Your task to perform on an android device: Search for hotels in Philadelphia Image 0: 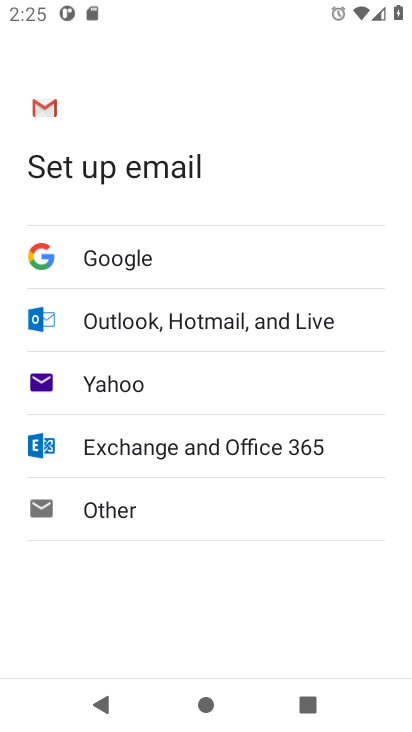
Step 0: press home button
Your task to perform on an android device: Search for hotels in Philadelphia Image 1: 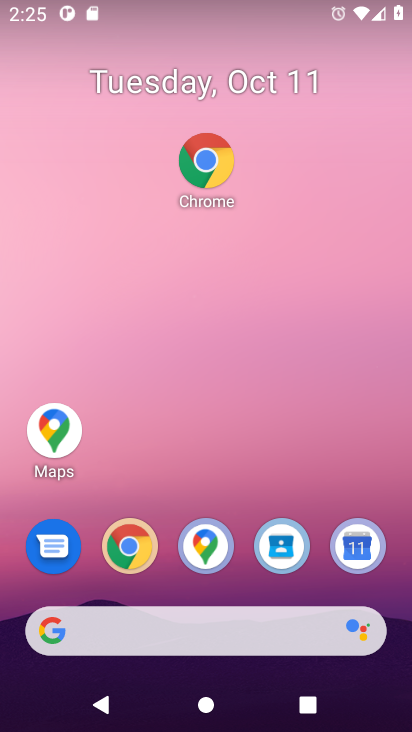
Step 1: click (127, 541)
Your task to perform on an android device: Search for hotels in Philadelphia Image 2: 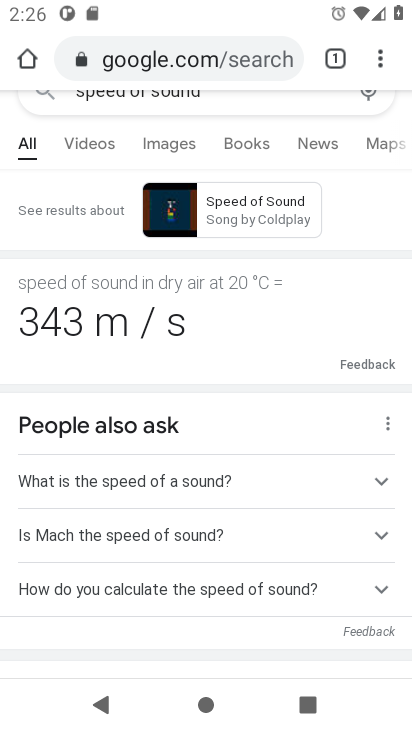
Step 2: click (203, 55)
Your task to perform on an android device: Search for hotels in Philadelphia Image 3: 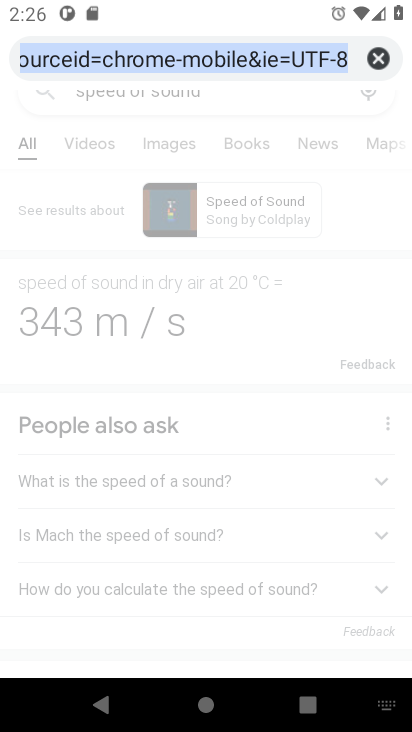
Step 3: type "hotels in Philadelphia"
Your task to perform on an android device: Search for hotels in Philadelphia Image 4: 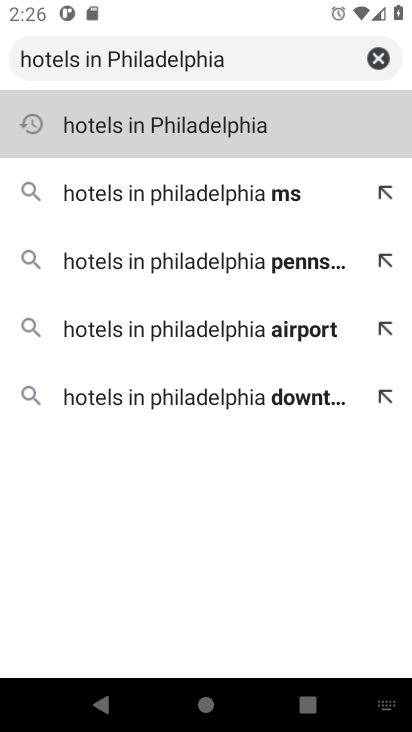
Step 4: press enter
Your task to perform on an android device: Search for hotels in Philadelphia Image 5: 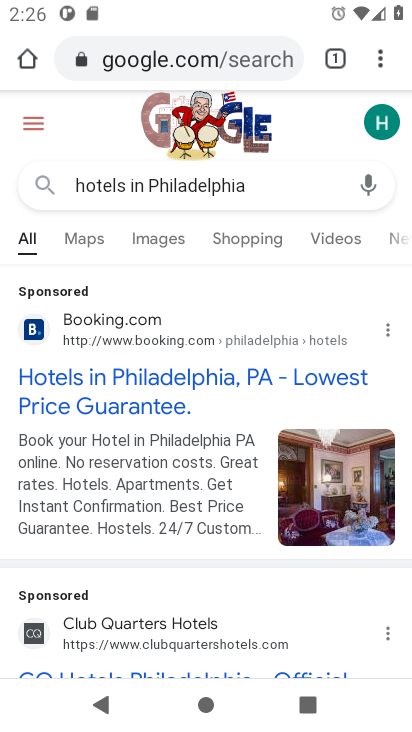
Step 5: click (141, 389)
Your task to perform on an android device: Search for hotels in Philadelphia Image 6: 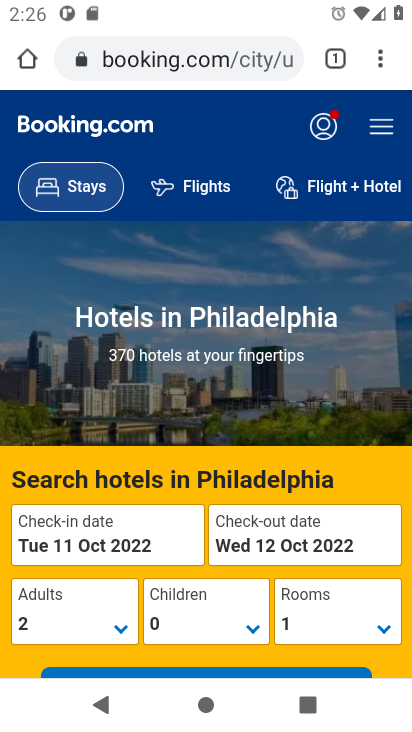
Step 6: drag from (271, 472) to (305, 236)
Your task to perform on an android device: Search for hotels in Philadelphia Image 7: 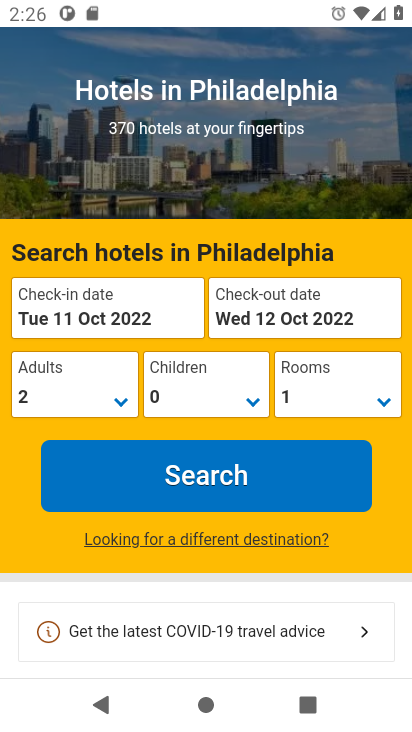
Step 7: drag from (284, 542) to (286, 162)
Your task to perform on an android device: Search for hotels in Philadelphia Image 8: 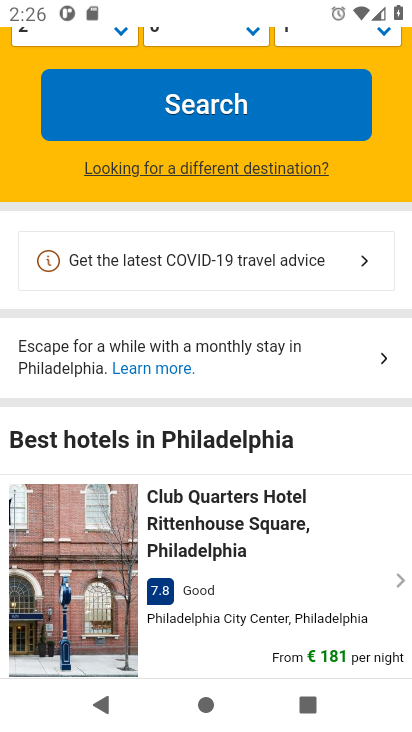
Step 8: drag from (224, 579) to (231, 233)
Your task to perform on an android device: Search for hotels in Philadelphia Image 9: 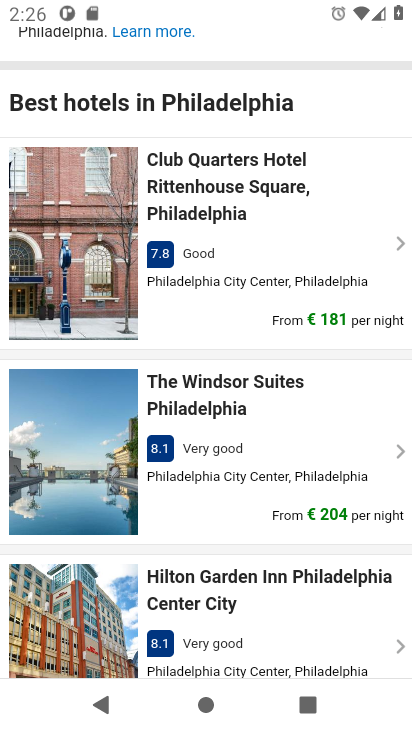
Step 9: drag from (224, 513) to (239, 414)
Your task to perform on an android device: Search for hotels in Philadelphia Image 10: 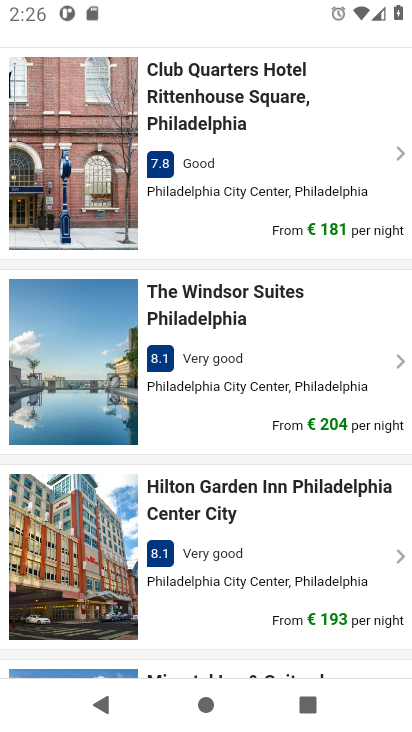
Step 10: click (318, 126)
Your task to perform on an android device: Search for hotels in Philadelphia Image 11: 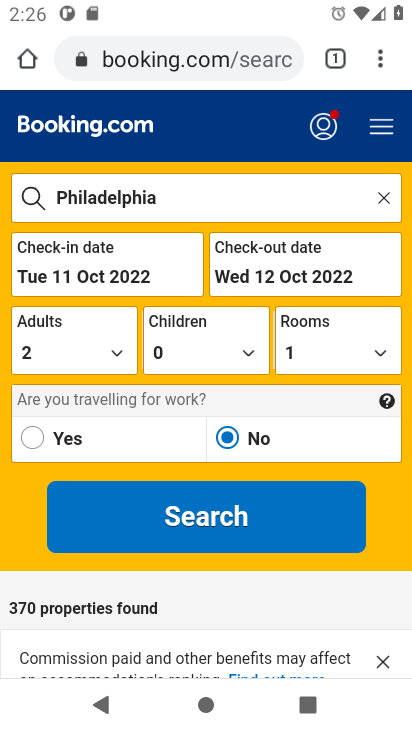
Step 11: drag from (367, 606) to (345, 286)
Your task to perform on an android device: Search for hotels in Philadelphia Image 12: 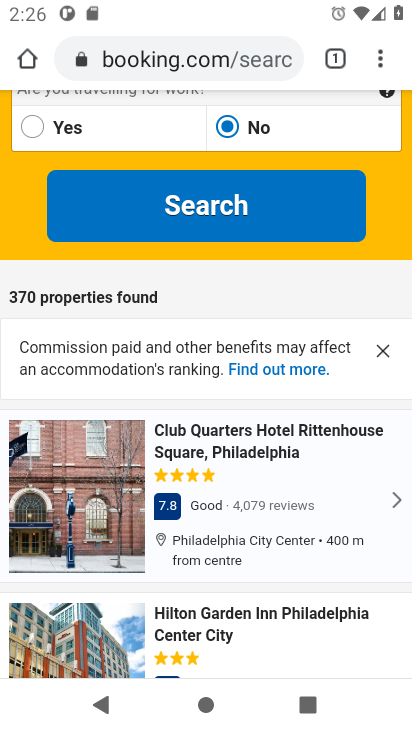
Step 12: drag from (285, 550) to (316, 643)
Your task to perform on an android device: Search for hotels in Philadelphia Image 13: 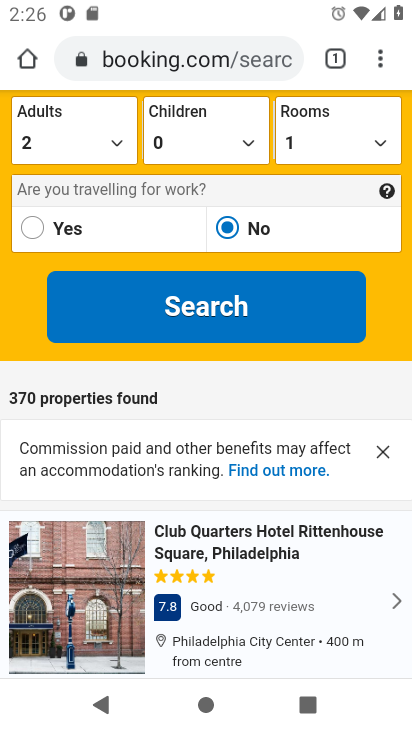
Step 13: drag from (241, 213) to (238, 537)
Your task to perform on an android device: Search for hotels in Philadelphia Image 14: 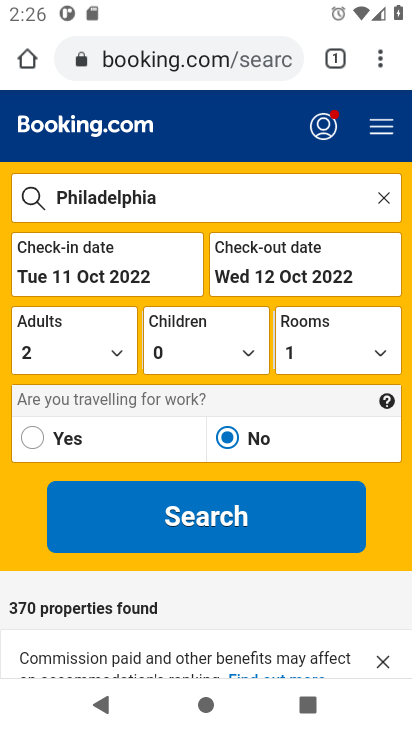
Step 14: drag from (286, 589) to (274, 272)
Your task to perform on an android device: Search for hotels in Philadelphia Image 15: 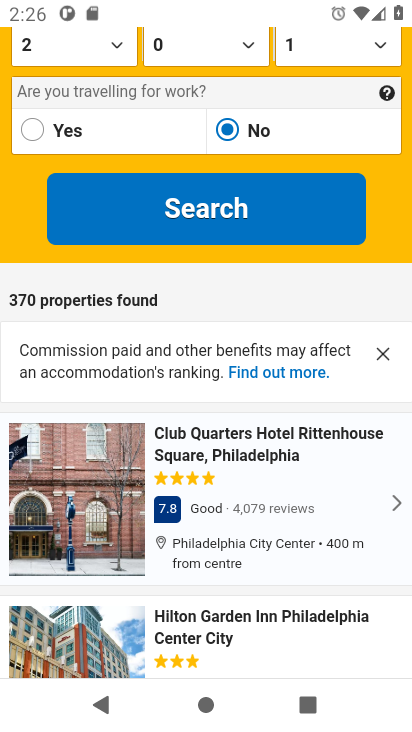
Step 15: drag from (267, 496) to (267, 158)
Your task to perform on an android device: Search for hotels in Philadelphia Image 16: 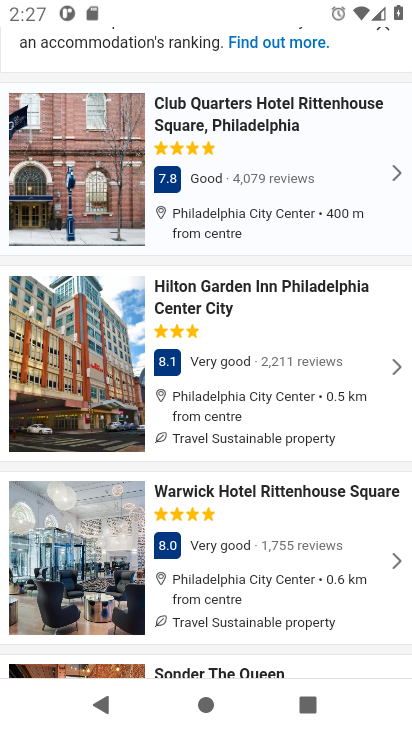
Step 16: click (393, 364)
Your task to perform on an android device: Search for hotels in Philadelphia Image 17: 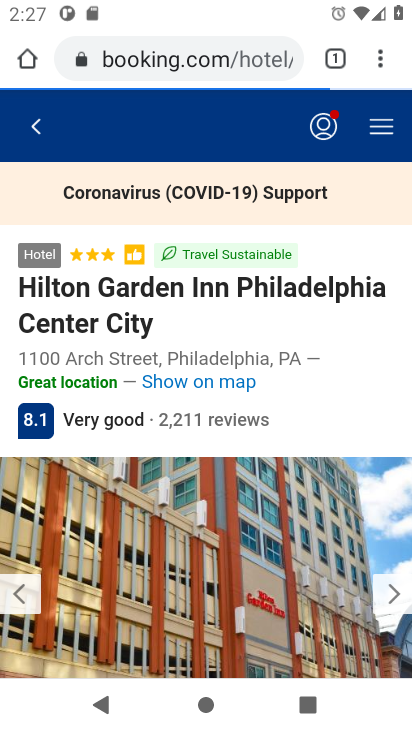
Step 17: drag from (274, 634) to (309, 423)
Your task to perform on an android device: Search for hotels in Philadelphia Image 18: 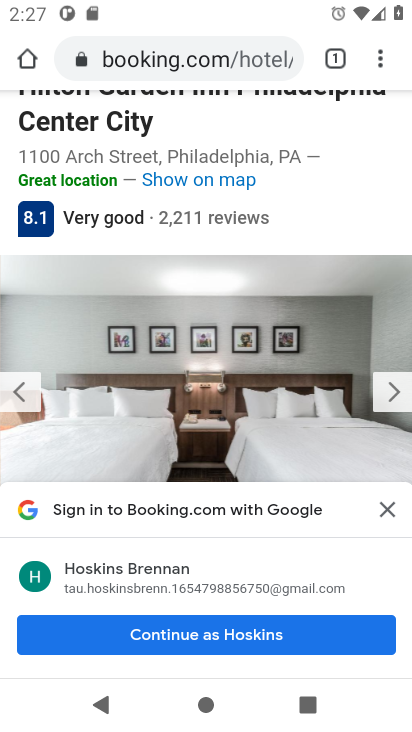
Step 18: click (397, 394)
Your task to perform on an android device: Search for hotels in Philadelphia Image 19: 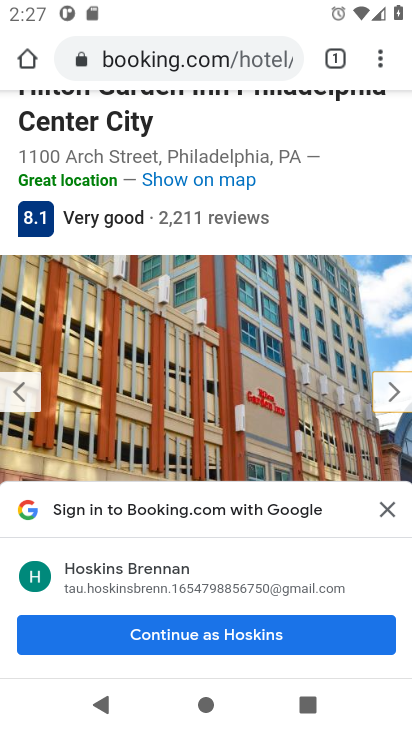
Step 19: click (397, 394)
Your task to perform on an android device: Search for hotels in Philadelphia Image 20: 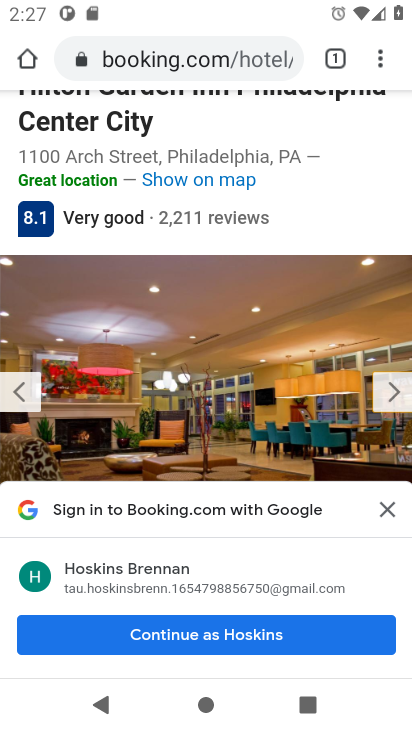
Step 20: click (397, 394)
Your task to perform on an android device: Search for hotels in Philadelphia Image 21: 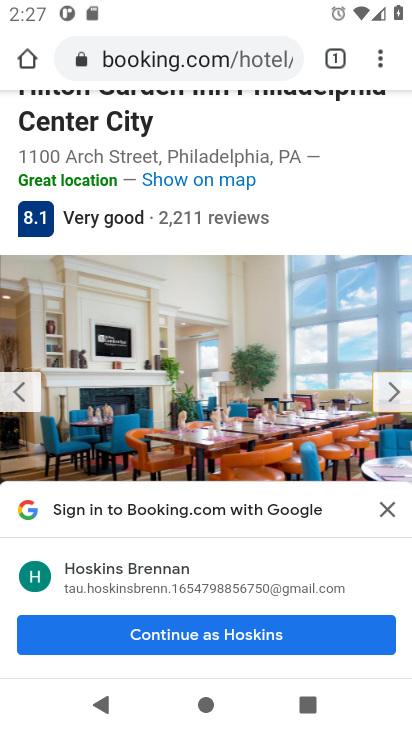
Step 21: click (397, 394)
Your task to perform on an android device: Search for hotels in Philadelphia Image 22: 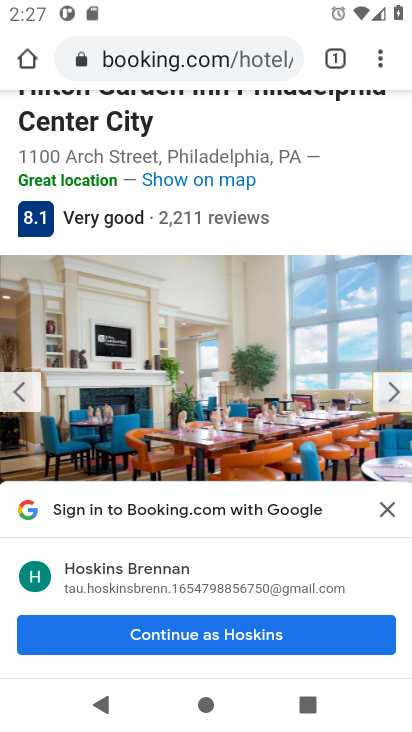
Step 22: click (278, 642)
Your task to perform on an android device: Search for hotels in Philadelphia Image 23: 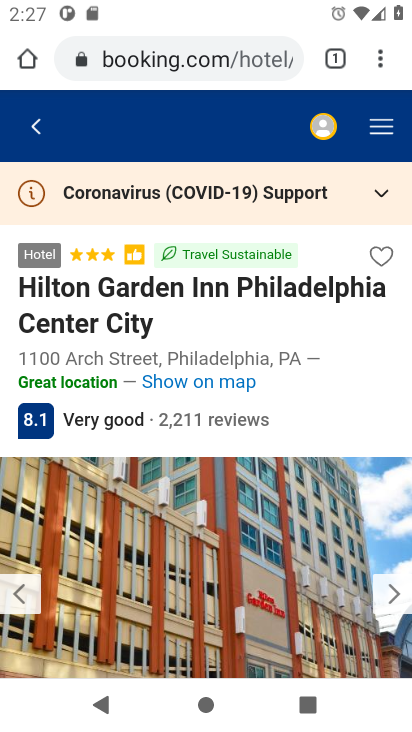
Step 23: task complete